Your task to perform on an android device: Go to sound settings Image 0: 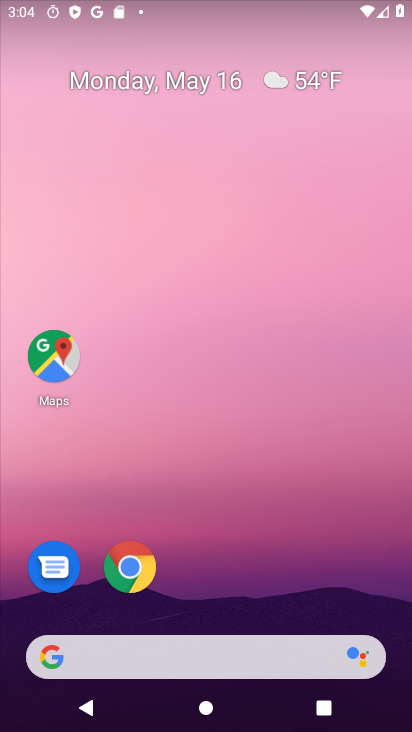
Step 0: drag from (271, 592) to (247, 145)
Your task to perform on an android device: Go to sound settings Image 1: 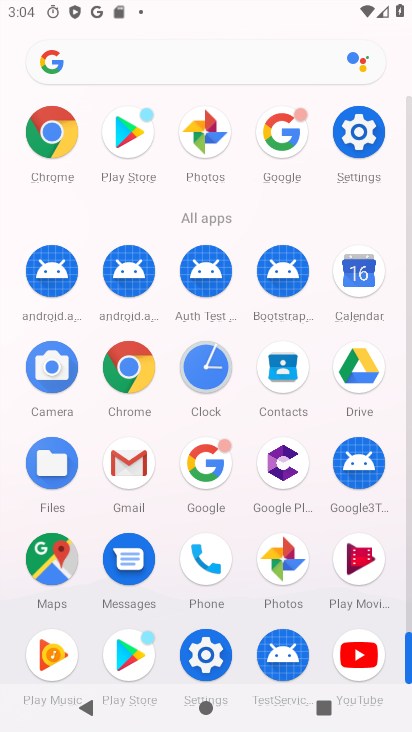
Step 1: click (359, 132)
Your task to perform on an android device: Go to sound settings Image 2: 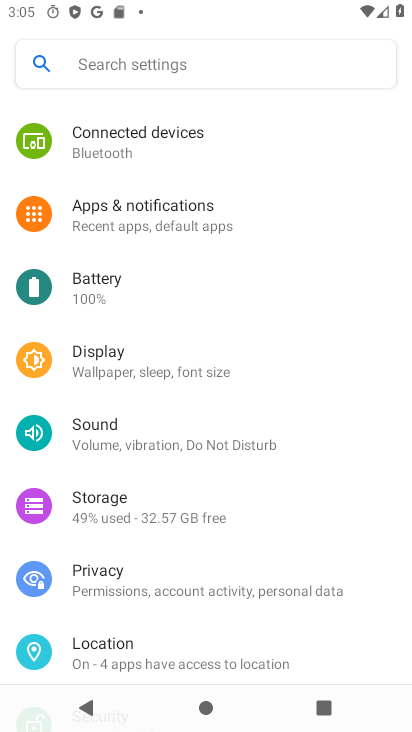
Step 2: drag from (152, 411) to (148, 350)
Your task to perform on an android device: Go to sound settings Image 3: 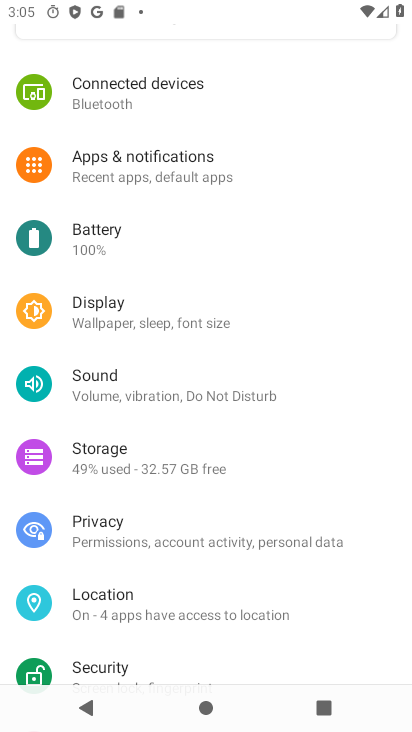
Step 3: click (139, 386)
Your task to perform on an android device: Go to sound settings Image 4: 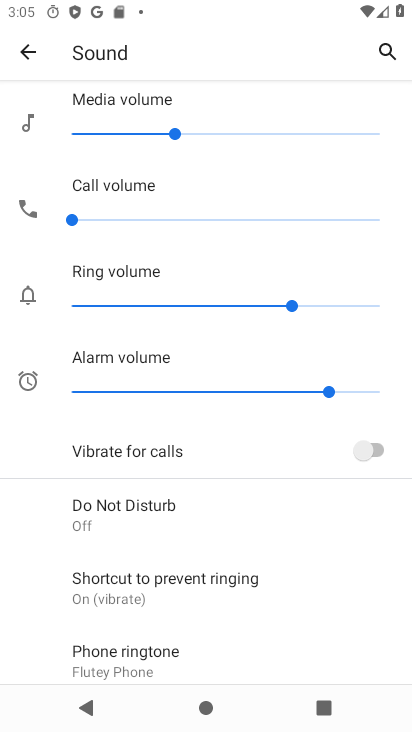
Step 4: task complete